Your task to perform on an android device: Show the shopping cart on amazon. Search for logitech g933 on amazon, select the first entry, add it to the cart, then select checkout. Image 0: 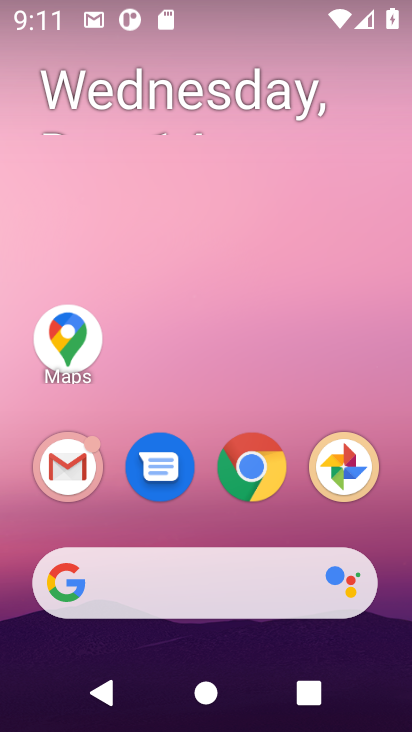
Step 0: click (217, 613)
Your task to perform on an android device: Show the shopping cart on amazon. Search for logitech g933 on amazon, select the first entry, add it to the cart, then select checkout. Image 1: 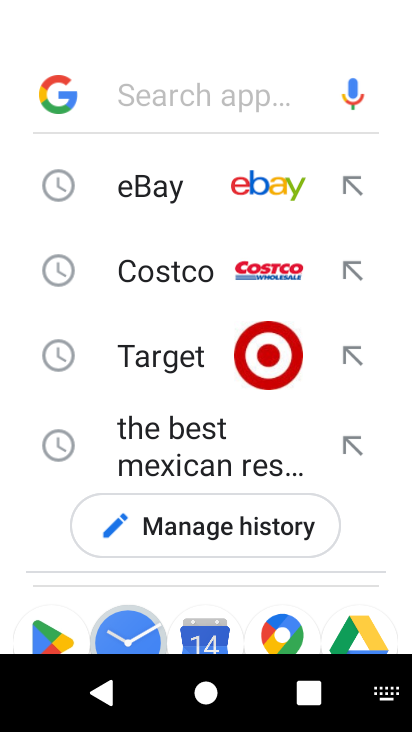
Step 1: type "amazon"
Your task to perform on an android device: Show the shopping cart on amazon. Search for logitech g933 on amazon, select the first entry, add it to the cart, then select checkout. Image 2: 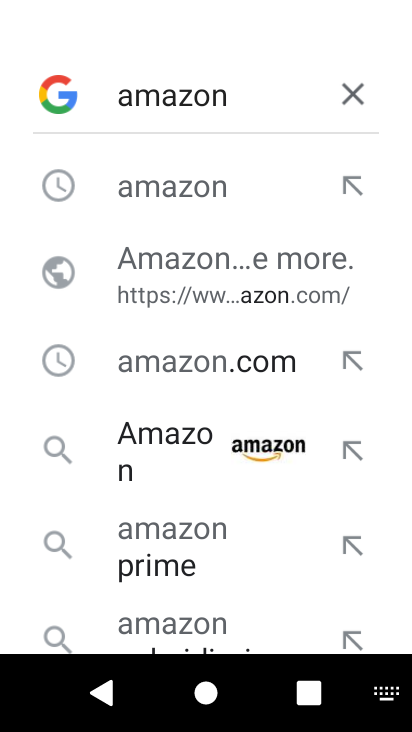
Step 2: click (182, 255)
Your task to perform on an android device: Show the shopping cart on amazon. Search for logitech g933 on amazon, select the first entry, add it to the cart, then select checkout. Image 3: 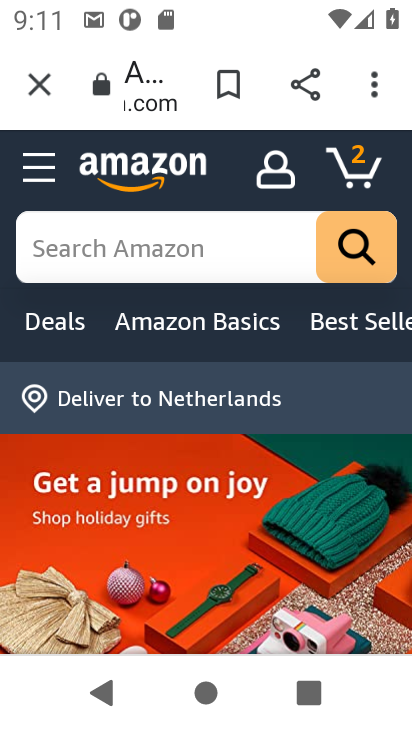
Step 3: click (182, 255)
Your task to perform on an android device: Show the shopping cart on amazon. Search for logitech g933 on amazon, select the first entry, add it to the cart, then select checkout. Image 4: 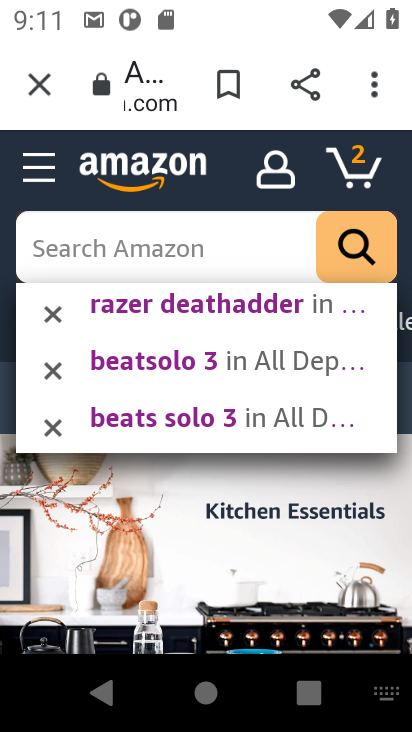
Step 4: type "logitech g933"
Your task to perform on an android device: Show the shopping cart on amazon. Search for logitech g933 on amazon, select the first entry, add it to the cart, then select checkout. Image 5: 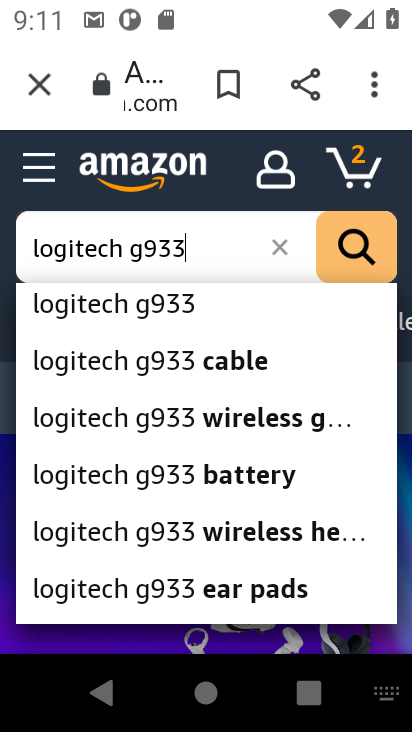
Step 5: click (267, 298)
Your task to perform on an android device: Show the shopping cart on amazon. Search for logitech g933 on amazon, select the first entry, add it to the cart, then select checkout. Image 6: 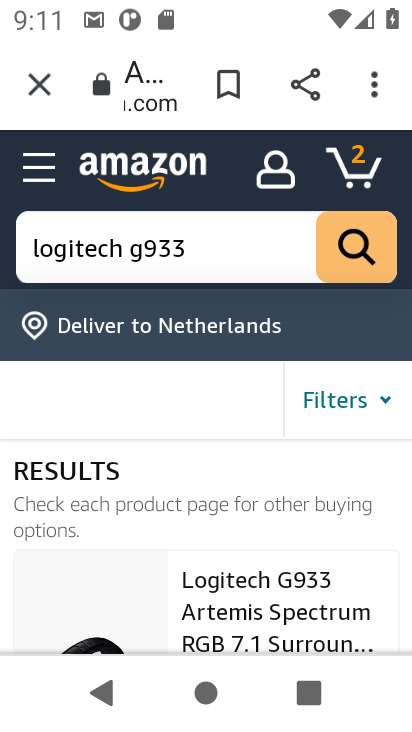
Step 6: click (347, 270)
Your task to perform on an android device: Show the shopping cart on amazon. Search for logitech g933 on amazon, select the first entry, add it to the cart, then select checkout. Image 7: 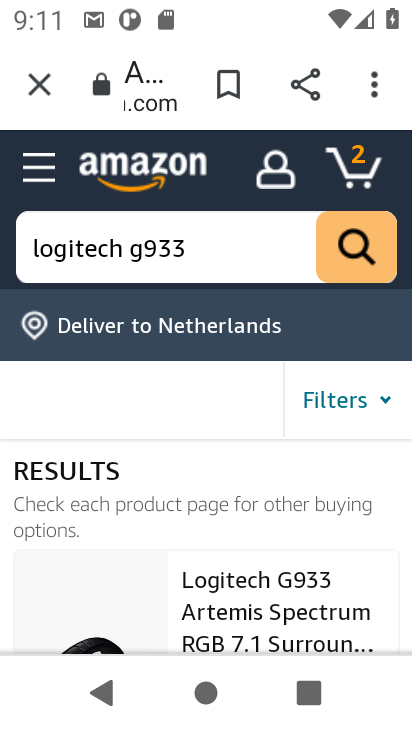
Step 7: click (290, 581)
Your task to perform on an android device: Show the shopping cart on amazon. Search for logitech g933 on amazon, select the first entry, add it to the cart, then select checkout. Image 8: 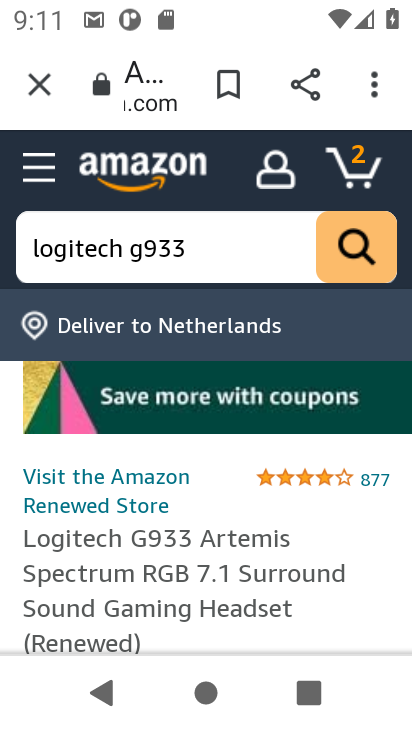
Step 8: drag from (290, 581) to (231, 383)
Your task to perform on an android device: Show the shopping cart on amazon. Search for logitech g933 on amazon, select the first entry, add it to the cart, then select checkout. Image 9: 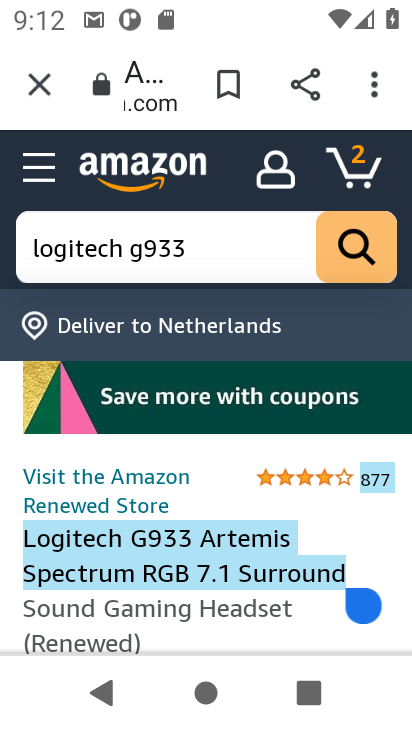
Step 9: click (359, 525)
Your task to perform on an android device: Show the shopping cart on amazon. Search for logitech g933 on amazon, select the first entry, add it to the cart, then select checkout. Image 10: 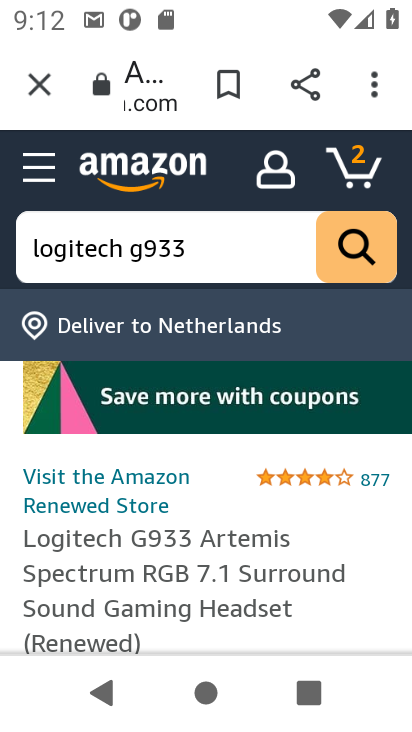
Step 10: drag from (309, 613) to (275, 408)
Your task to perform on an android device: Show the shopping cart on amazon. Search for logitech g933 on amazon, select the first entry, add it to the cart, then select checkout. Image 11: 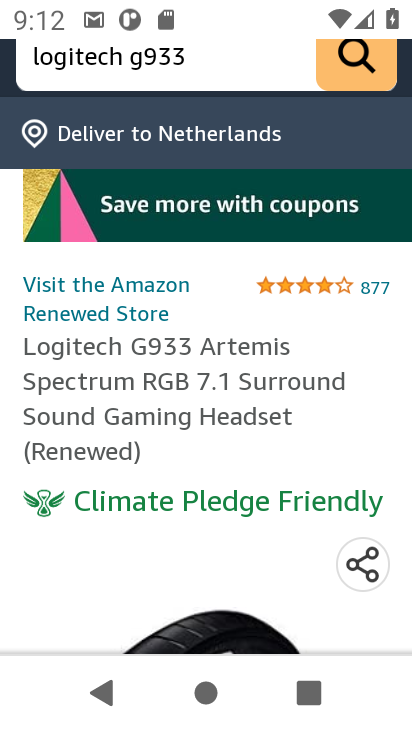
Step 11: drag from (336, 580) to (314, 377)
Your task to perform on an android device: Show the shopping cart on amazon. Search for logitech g933 on amazon, select the first entry, add it to the cart, then select checkout. Image 12: 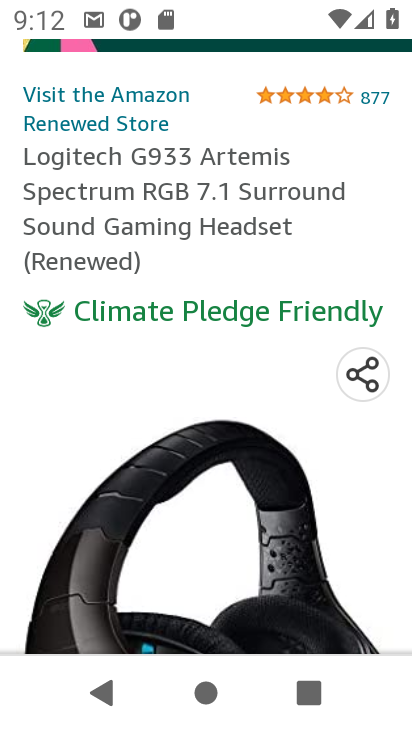
Step 12: drag from (274, 603) to (252, 384)
Your task to perform on an android device: Show the shopping cart on amazon. Search for logitech g933 on amazon, select the first entry, add it to the cart, then select checkout. Image 13: 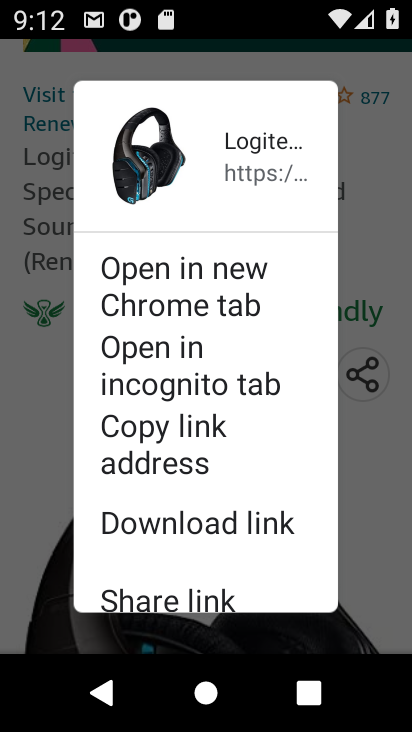
Step 13: click (371, 525)
Your task to perform on an android device: Show the shopping cart on amazon. Search for logitech g933 on amazon, select the first entry, add it to the cart, then select checkout. Image 14: 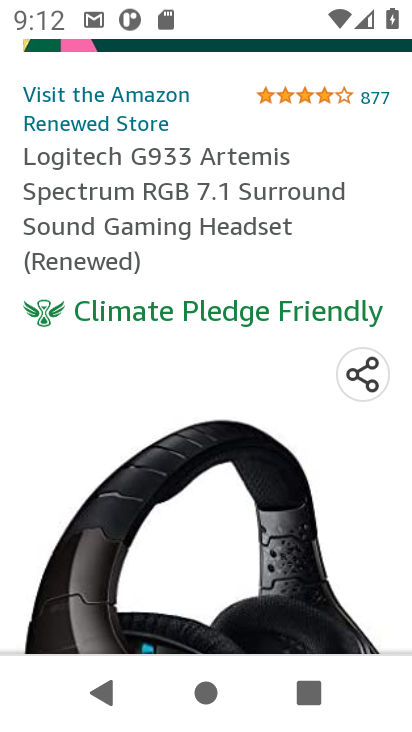
Step 14: drag from (278, 626) to (231, 408)
Your task to perform on an android device: Show the shopping cart on amazon. Search for logitech g933 on amazon, select the first entry, add it to the cart, then select checkout. Image 15: 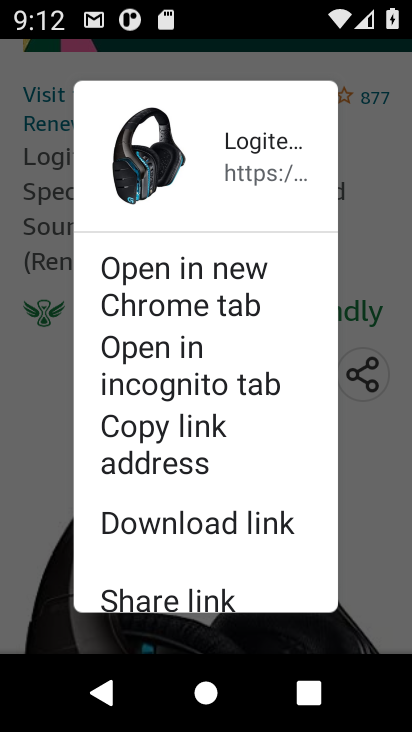
Step 15: click (14, 552)
Your task to perform on an android device: Show the shopping cart on amazon. Search for logitech g933 on amazon, select the first entry, add it to the cart, then select checkout. Image 16: 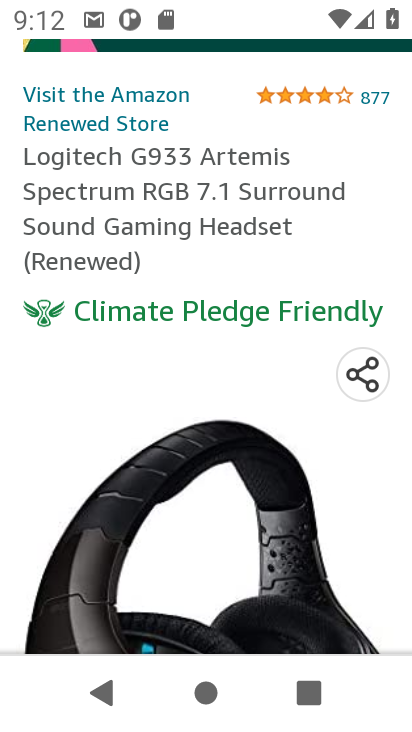
Step 16: task complete